Your task to perform on an android device: delete a single message in the gmail app Image 0: 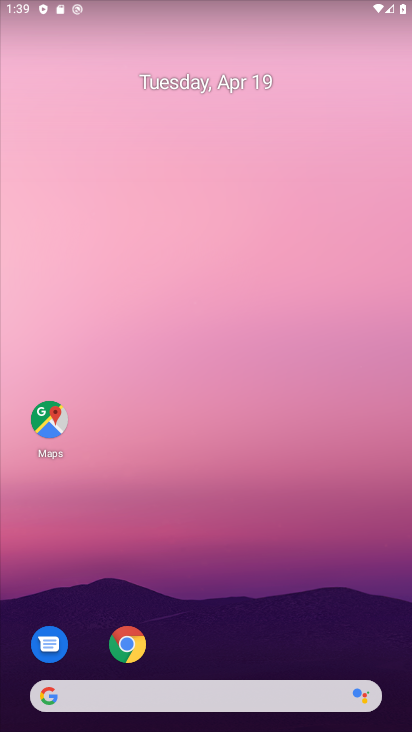
Step 0: drag from (209, 726) to (206, 64)
Your task to perform on an android device: delete a single message in the gmail app Image 1: 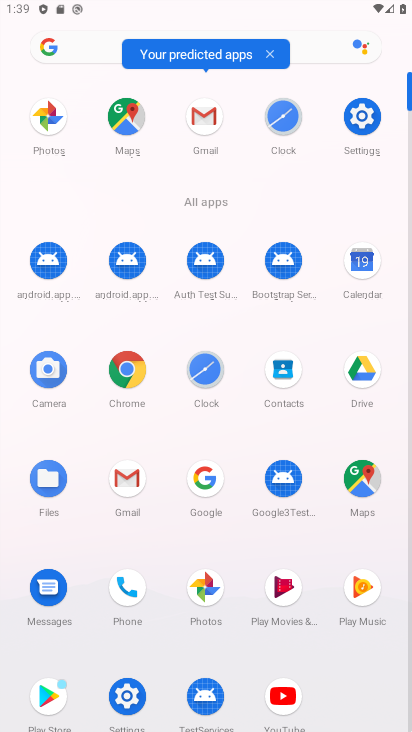
Step 1: click (116, 476)
Your task to perform on an android device: delete a single message in the gmail app Image 2: 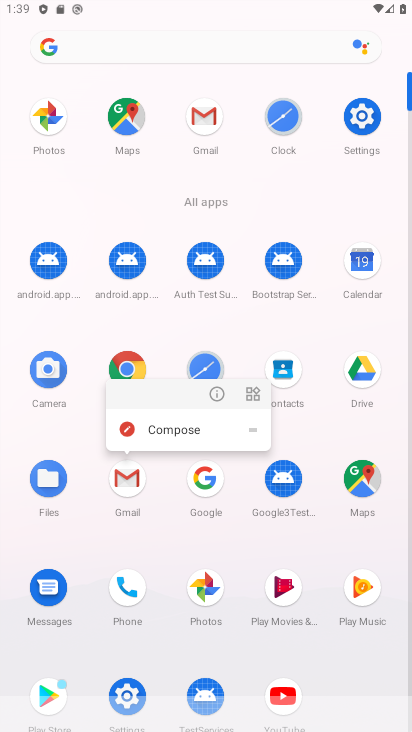
Step 2: click (121, 480)
Your task to perform on an android device: delete a single message in the gmail app Image 3: 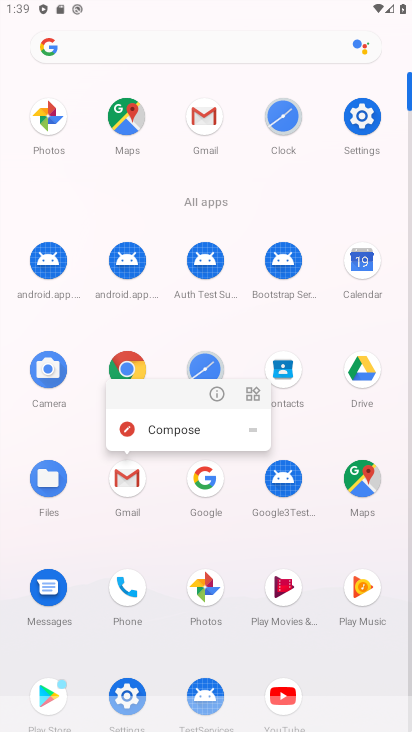
Step 3: click (122, 485)
Your task to perform on an android device: delete a single message in the gmail app Image 4: 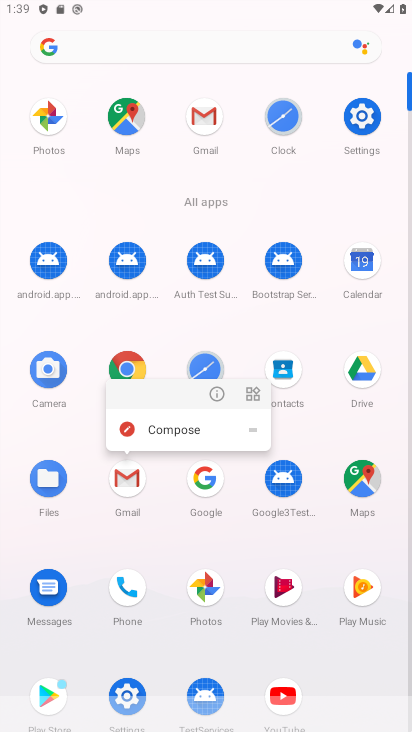
Step 4: click (122, 485)
Your task to perform on an android device: delete a single message in the gmail app Image 5: 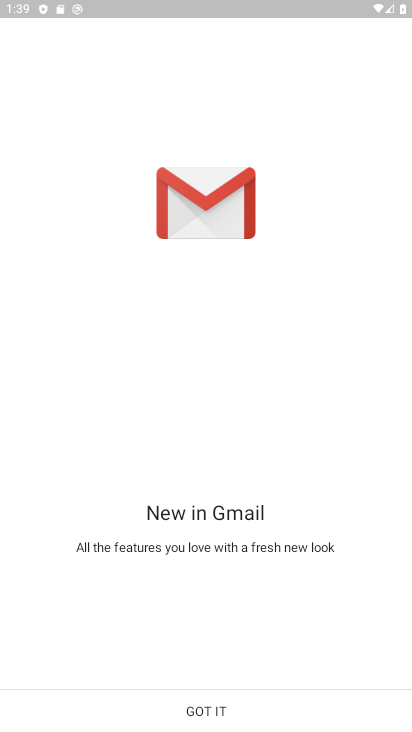
Step 5: click (209, 709)
Your task to perform on an android device: delete a single message in the gmail app Image 6: 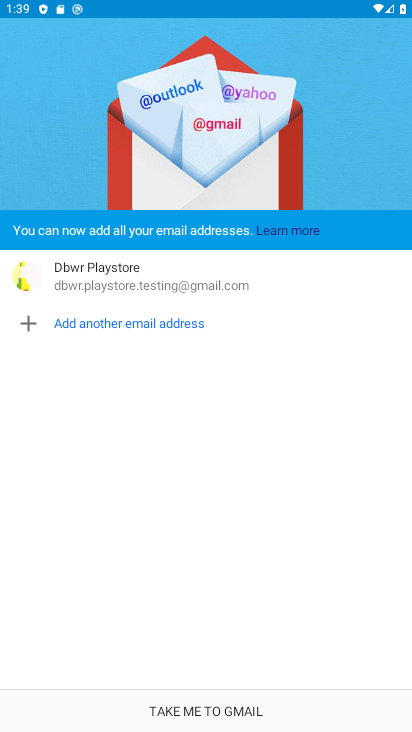
Step 6: click (209, 710)
Your task to perform on an android device: delete a single message in the gmail app Image 7: 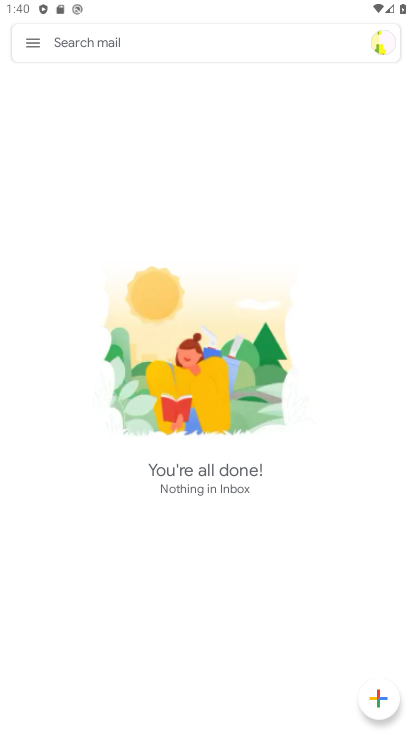
Step 7: task complete